Your task to perform on an android device: open app "Grab" (install if not already installed) Image 0: 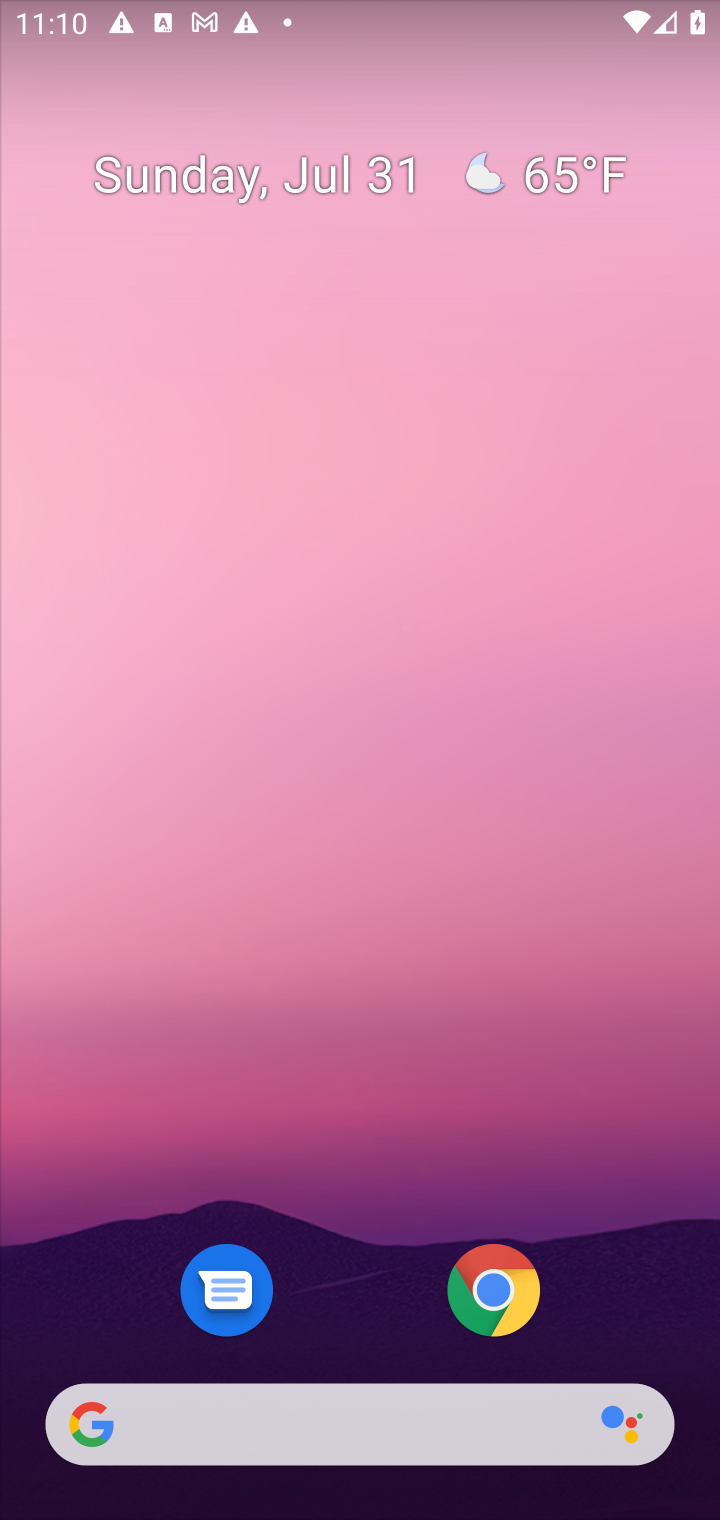
Step 0: press home button
Your task to perform on an android device: open app "Grab" (install if not already installed) Image 1: 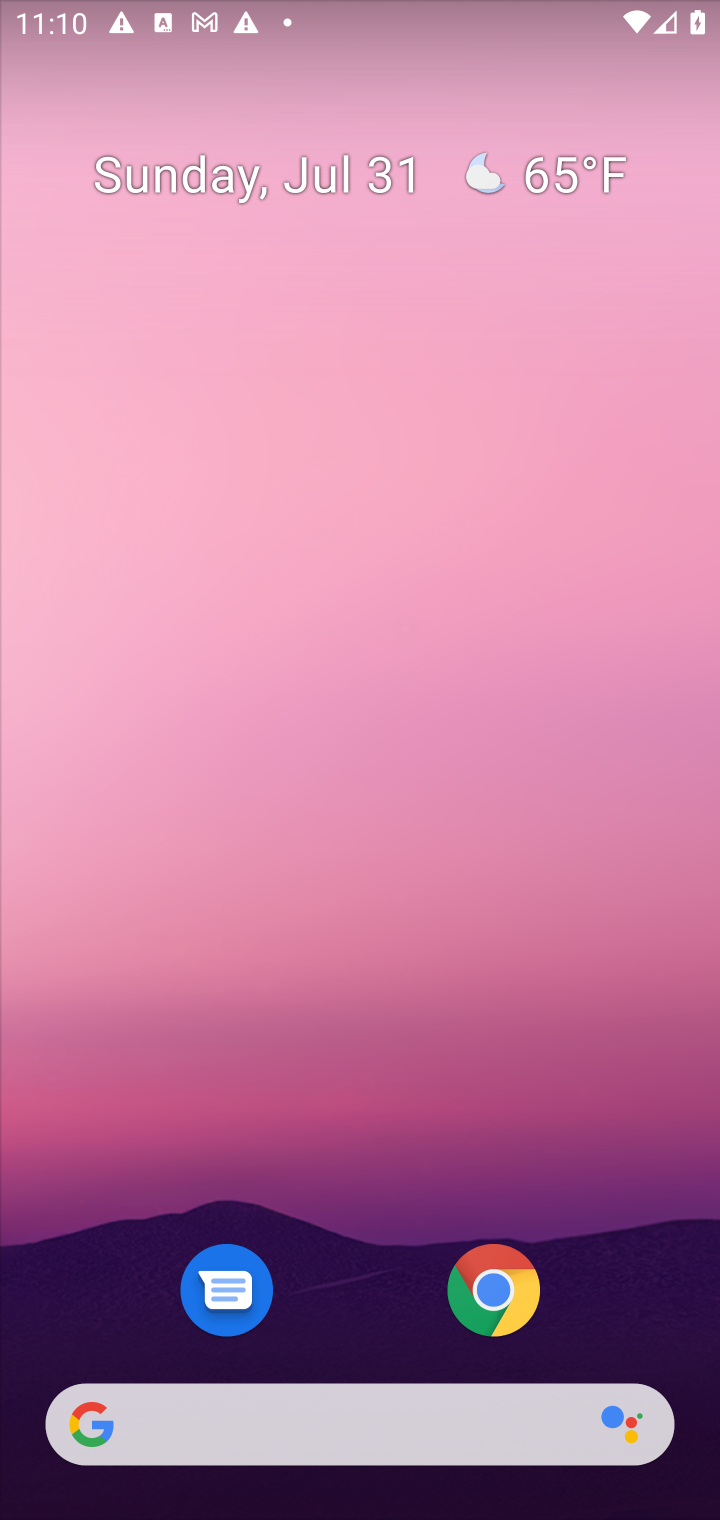
Step 1: drag from (620, 1234) to (488, 125)
Your task to perform on an android device: open app "Grab" (install if not already installed) Image 2: 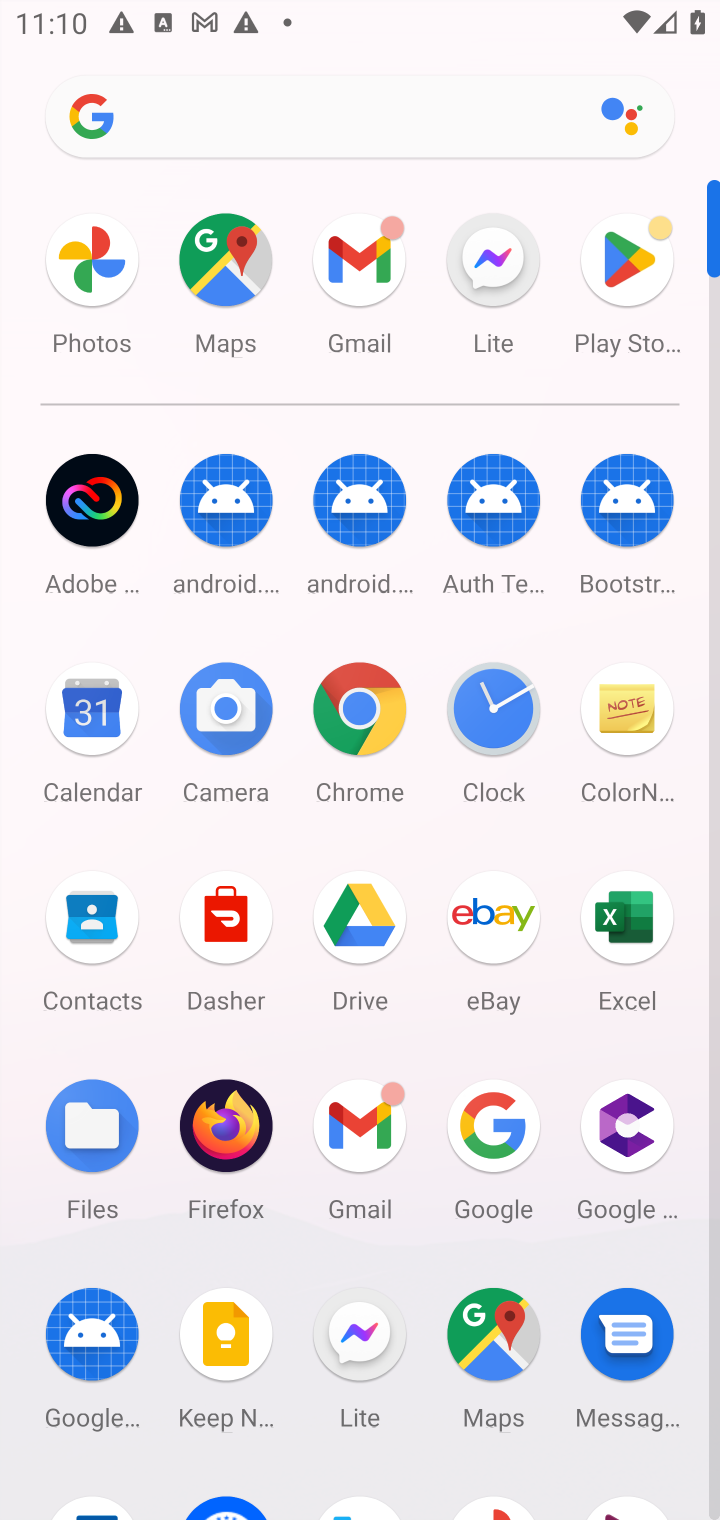
Step 2: click (631, 261)
Your task to perform on an android device: open app "Grab" (install if not already installed) Image 3: 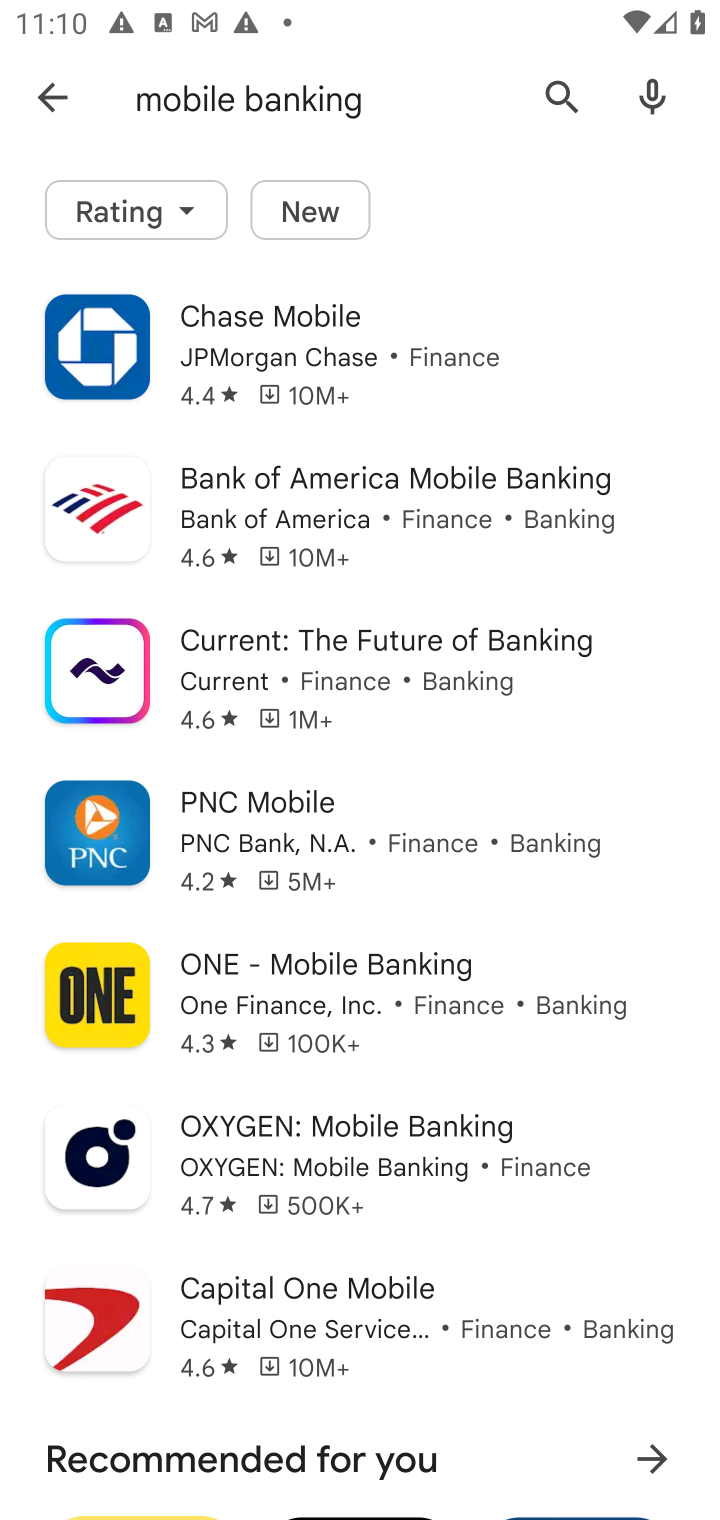
Step 3: click (562, 94)
Your task to perform on an android device: open app "Grab" (install if not already installed) Image 4: 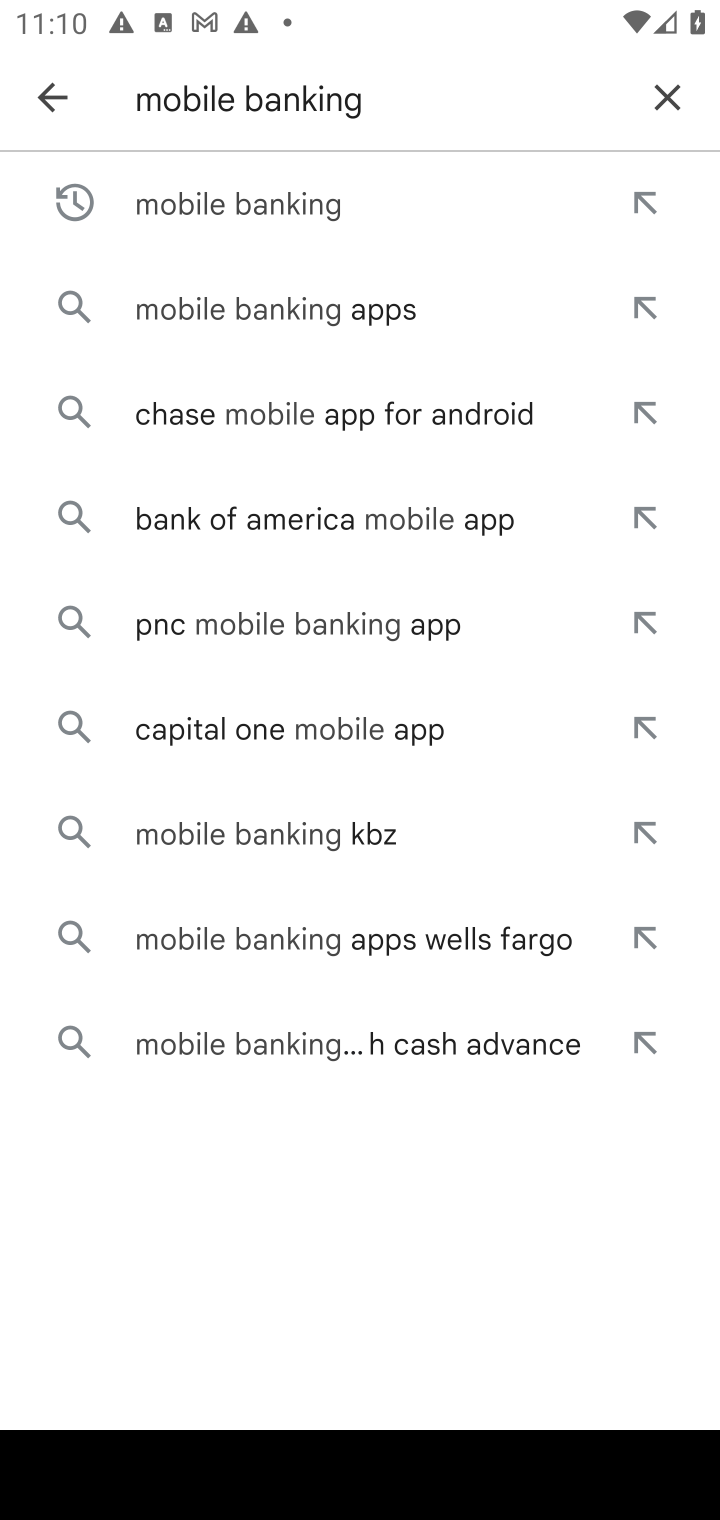
Step 4: click (664, 95)
Your task to perform on an android device: open app "Grab" (install if not already installed) Image 5: 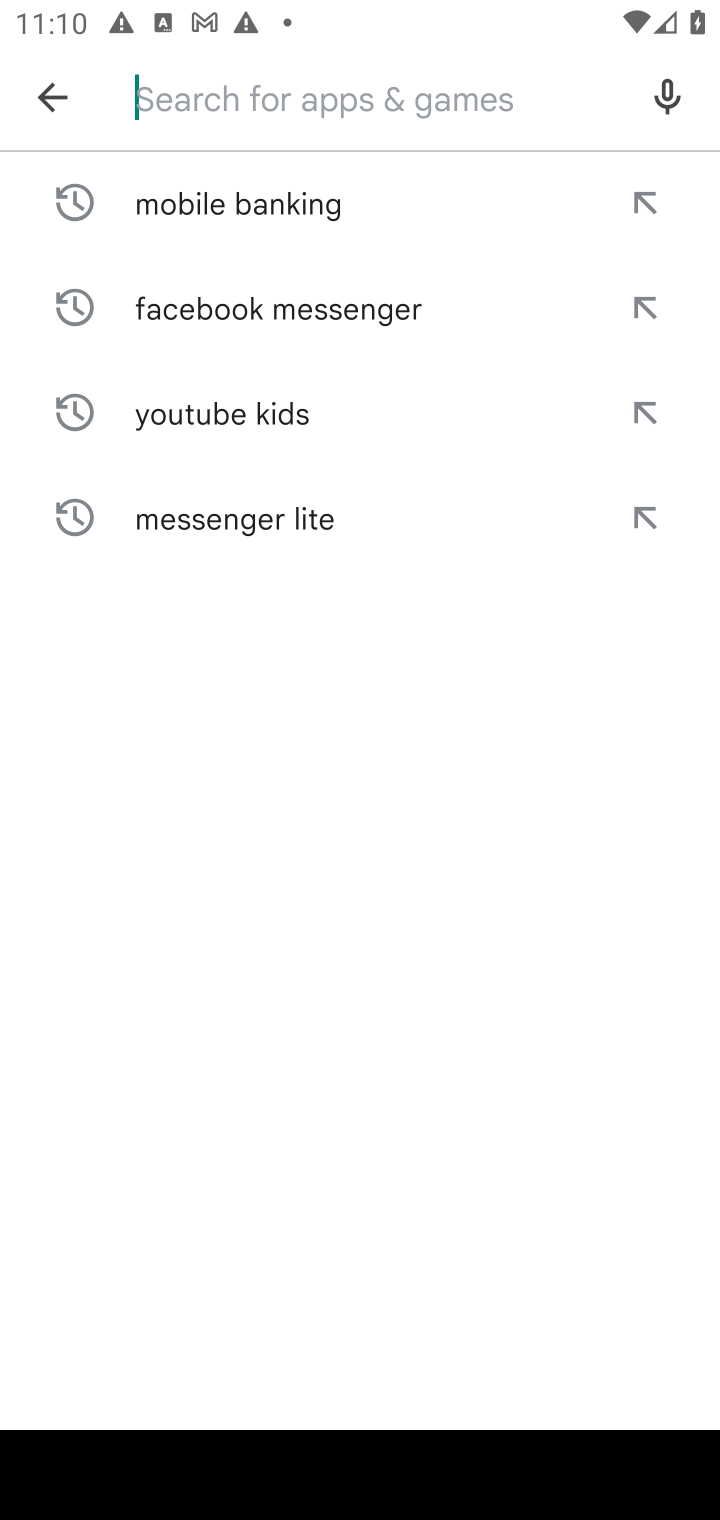
Step 5: type "grab"
Your task to perform on an android device: open app "Grab" (install if not already installed) Image 6: 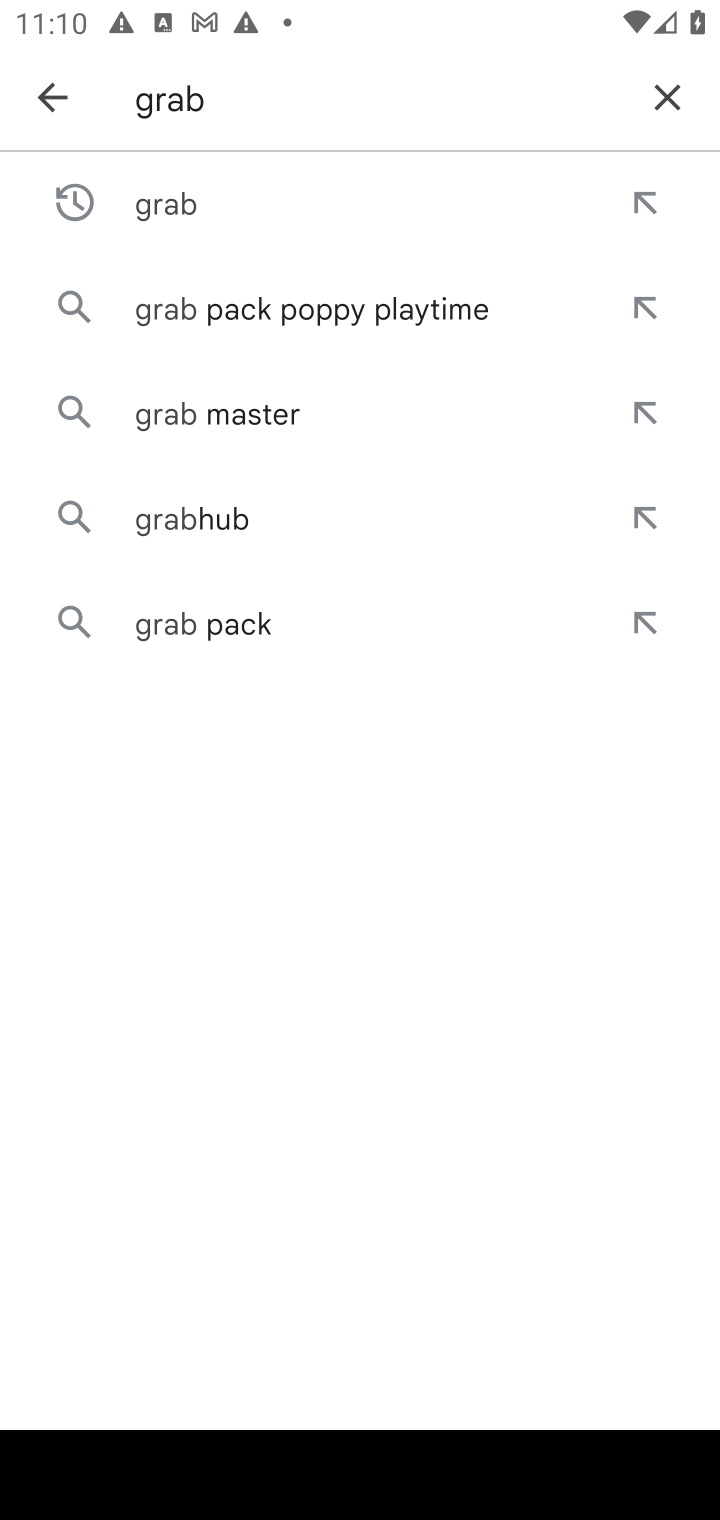
Step 6: click (374, 223)
Your task to perform on an android device: open app "Grab" (install if not already installed) Image 7: 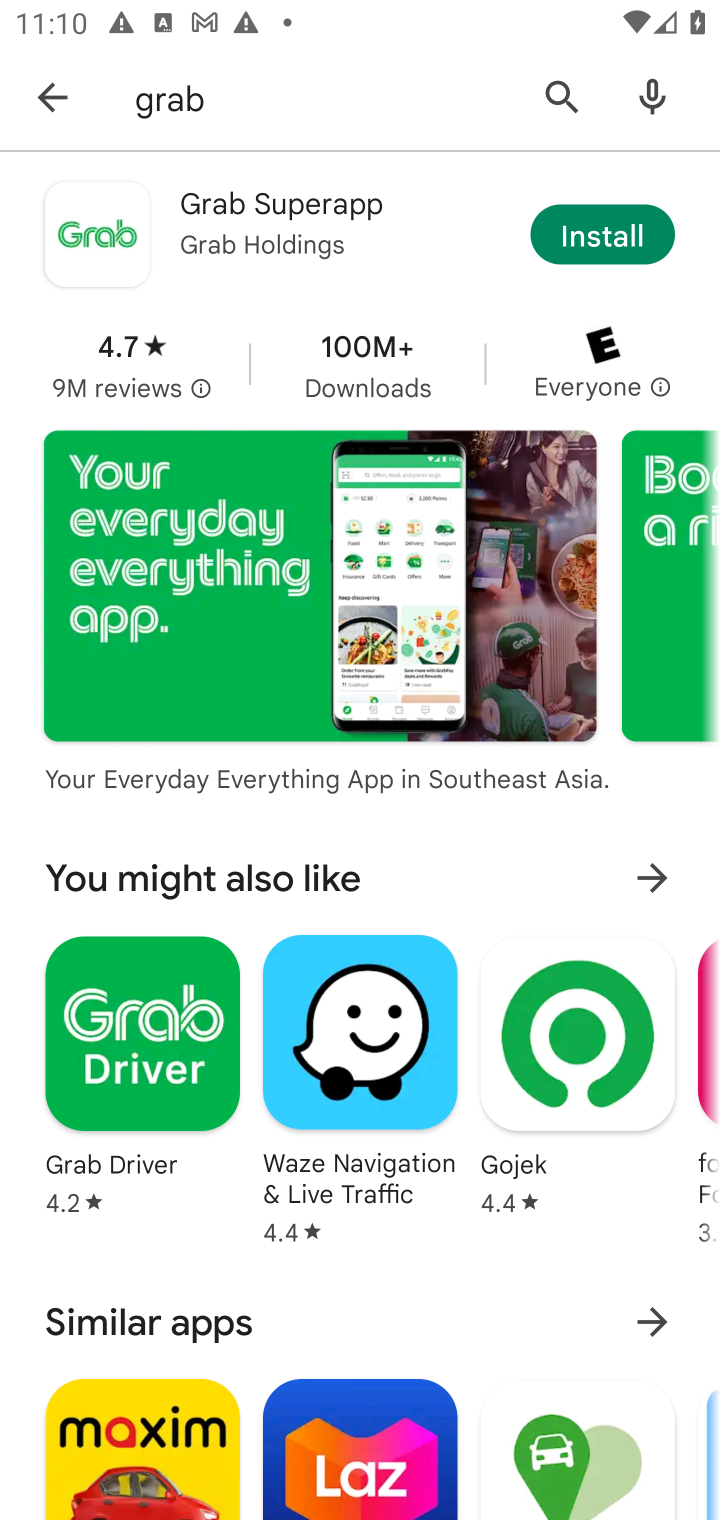
Step 7: click (600, 229)
Your task to perform on an android device: open app "Grab" (install if not already installed) Image 8: 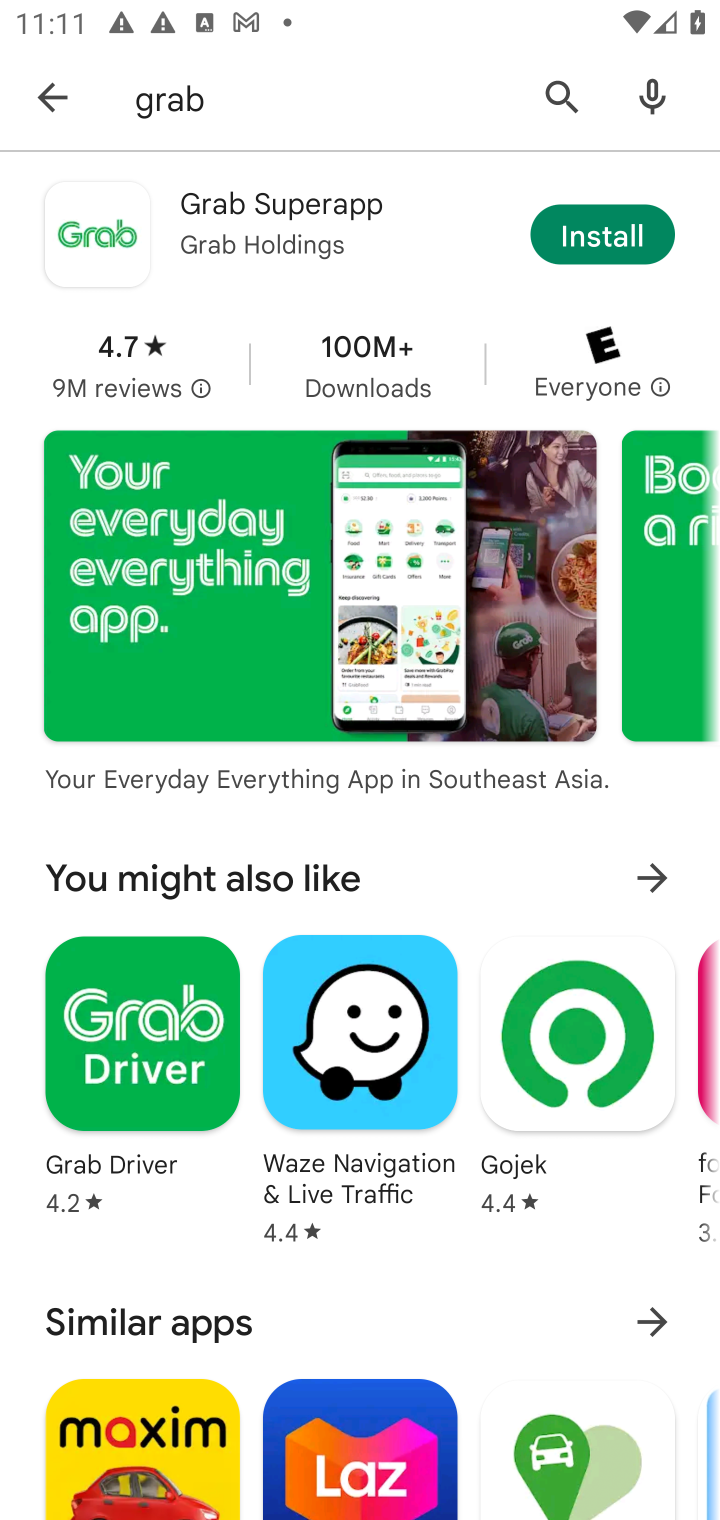
Step 8: task complete